Your task to perform on an android device: toggle show notifications on the lock screen Image 0: 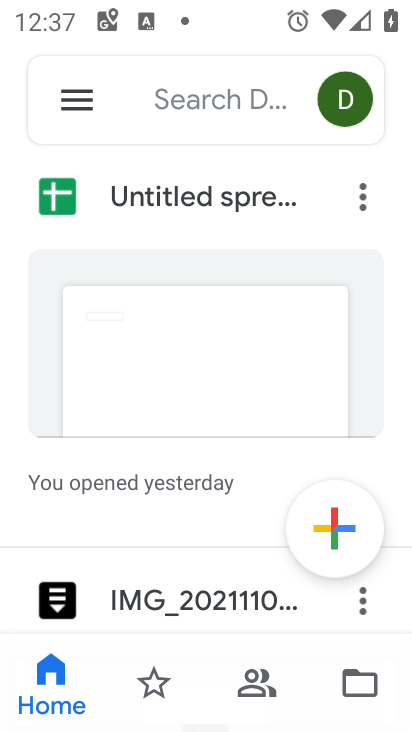
Step 0: press home button
Your task to perform on an android device: toggle show notifications on the lock screen Image 1: 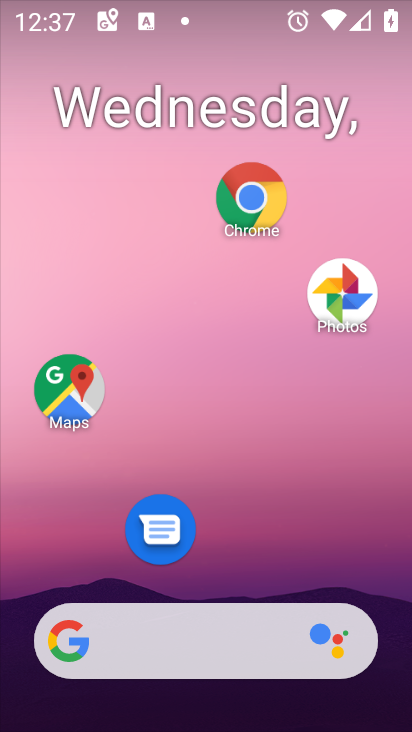
Step 1: drag from (121, 645) to (230, 165)
Your task to perform on an android device: toggle show notifications on the lock screen Image 2: 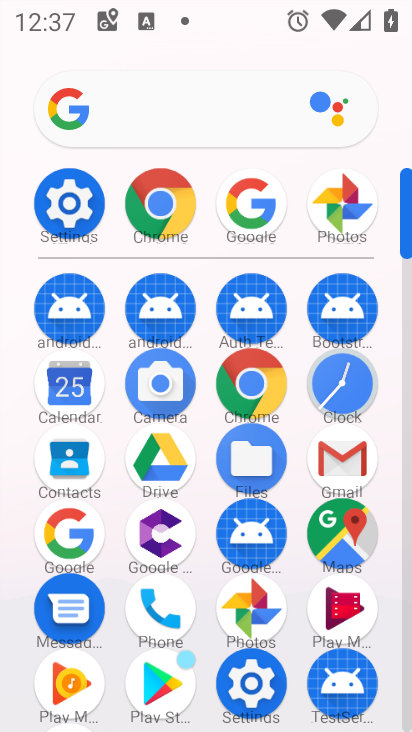
Step 2: drag from (271, 344) to (317, 231)
Your task to perform on an android device: toggle show notifications on the lock screen Image 3: 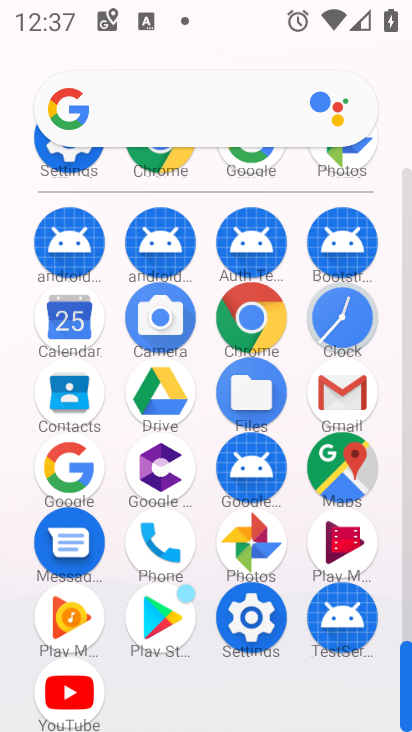
Step 3: click (260, 612)
Your task to perform on an android device: toggle show notifications on the lock screen Image 4: 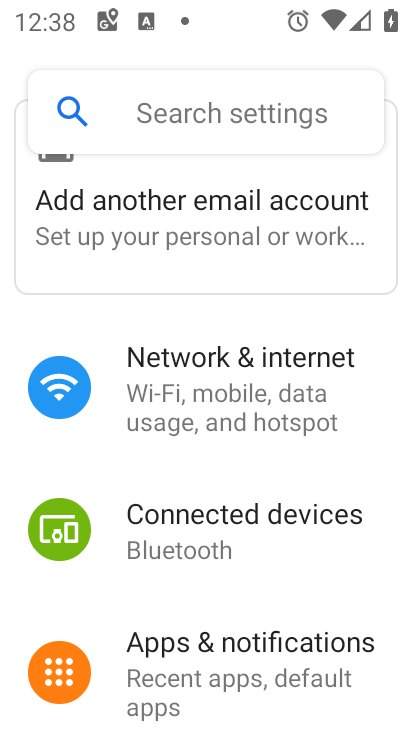
Step 4: click (267, 662)
Your task to perform on an android device: toggle show notifications on the lock screen Image 5: 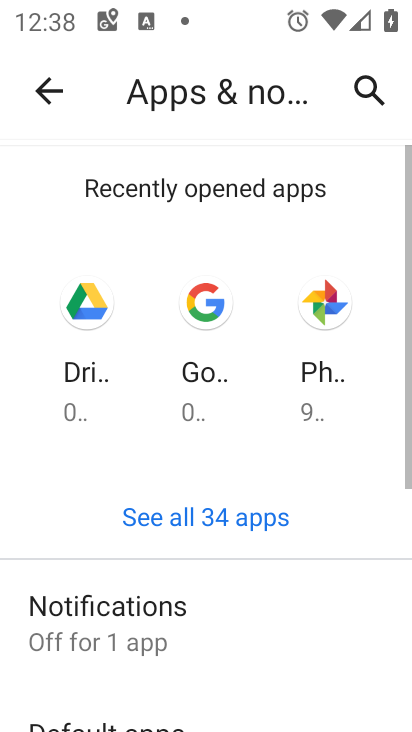
Step 5: drag from (216, 644) to (212, 534)
Your task to perform on an android device: toggle show notifications on the lock screen Image 6: 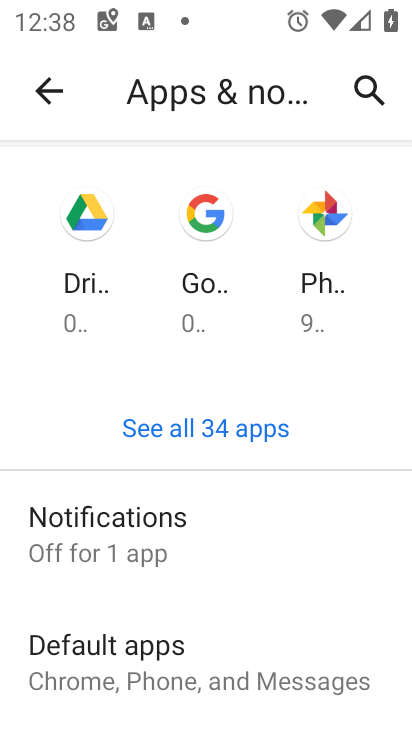
Step 6: click (180, 537)
Your task to perform on an android device: toggle show notifications on the lock screen Image 7: 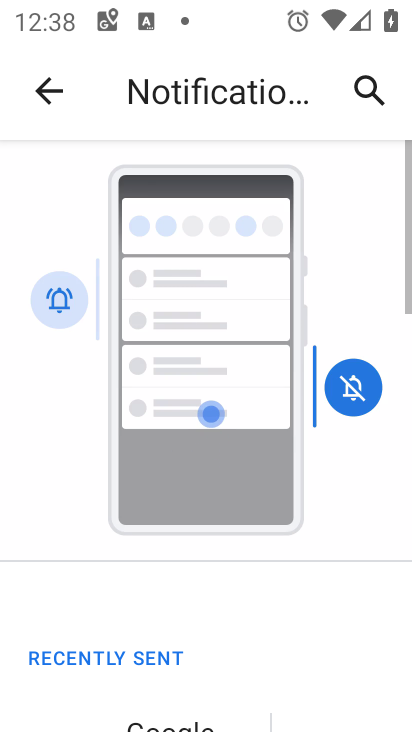
Step 7: drag from (156, 613) to (224, 169)
Your task to perform on an android device: toggle show notifications on the lock screen Image 8: 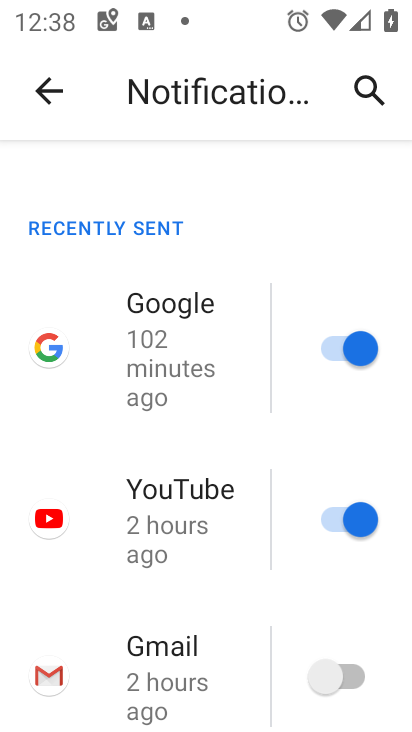
Step 8: drag from (179, 581) to (211, 257)
Your task to perform on an android device: toggle show notifications on the lock screen Image 9: 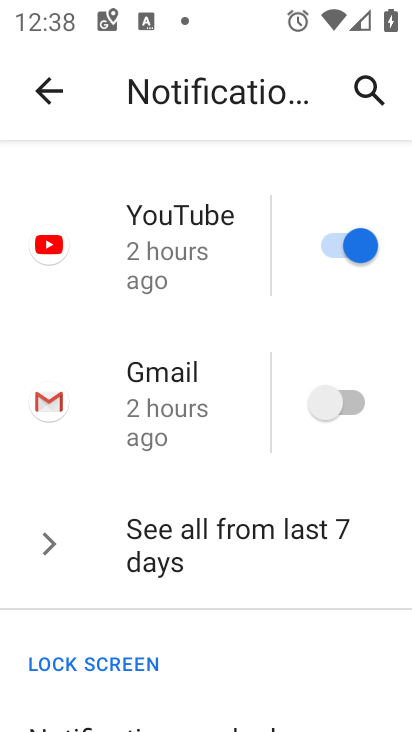
Step 9: drag from (132, 575) to (193, 288)
Your task to perform on an android device: toggle show notifications on the lock screen Image 10: 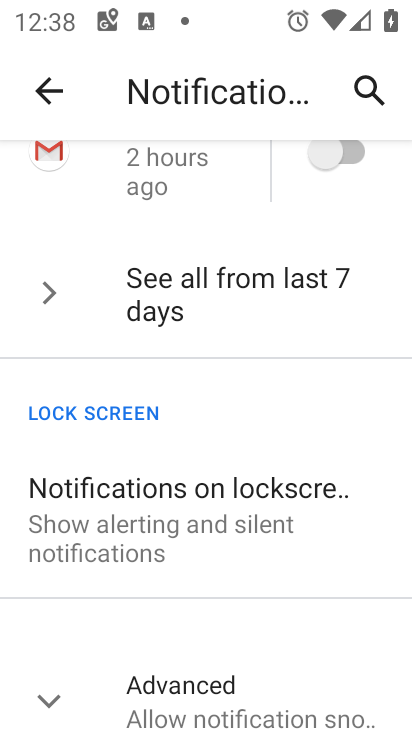
Step 10: click (211, 506)
Your task to perform on an android device: toggle show notifications on the lock screen Image 11: 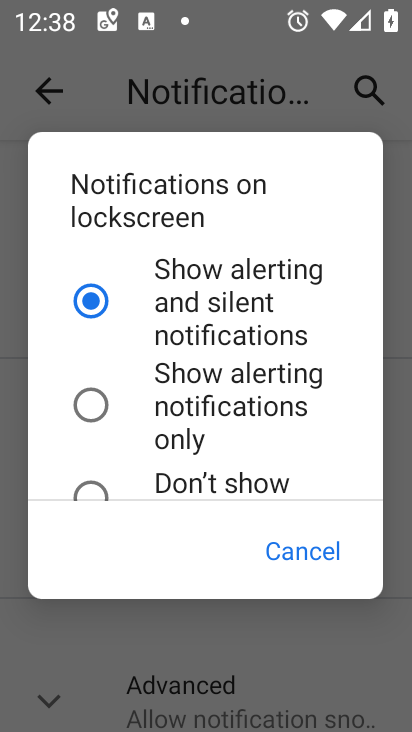
Step 11: drag from (190, 447) to (181, 291)
Your task to perform on an android device: toggle show notifications on the lock screen Image 12: 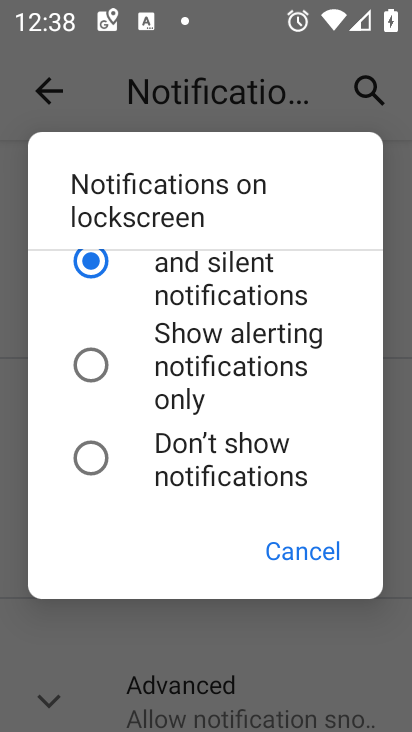
Step 12: click (140, 452)
Your task to perform on an android device: toggle show notifications on the lock screen Image 13: 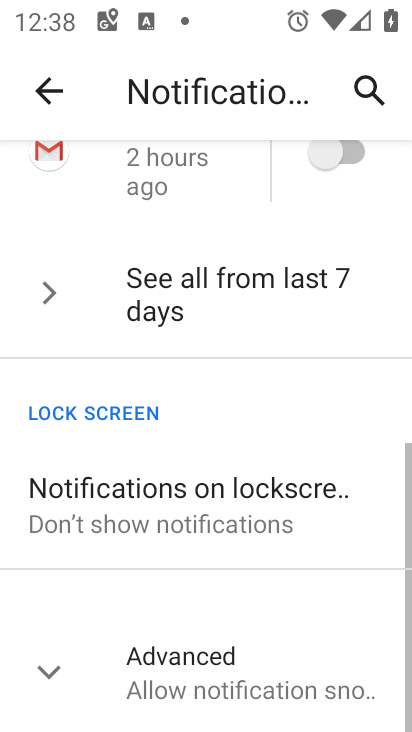
Step 13: task complete